Your task to perform on an android device: change keyboard looks Image 0: 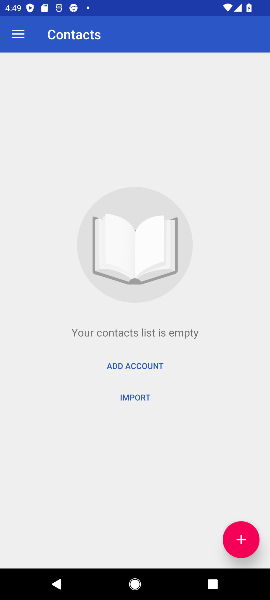
Step 0: press home button
Your task to perform on an android device: change keyboard looks Image 1: 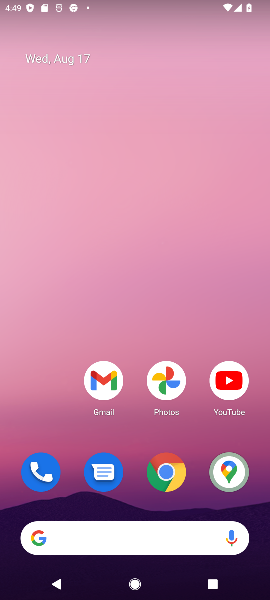
Step 1: drag from (145, 441) to (145, 104)
Your task to perform on an android device: change keyboard looks Image 2: 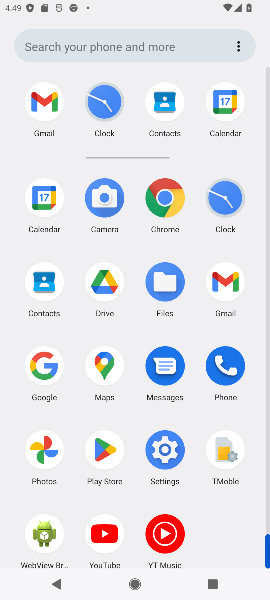
Step 2: click (143, 446)
Your task to perform on an android device: change keyboard looks Image 3: 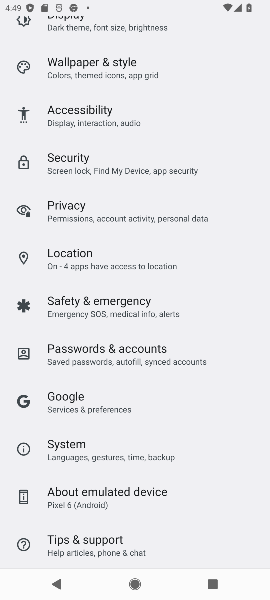
Step 3: drag from (116, 501) to (107, 116)
Your task to perform on an android device: change keyboard looks Image 4: 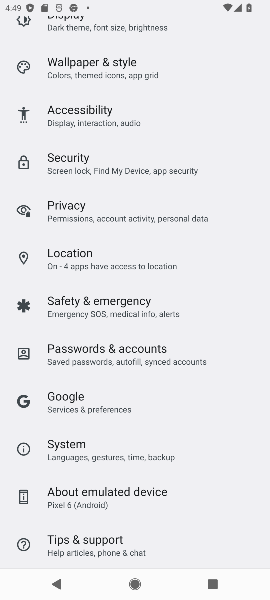
Step 4: click (85, 452)
Your task to perform on an android device: change keyboard looks Image 5: 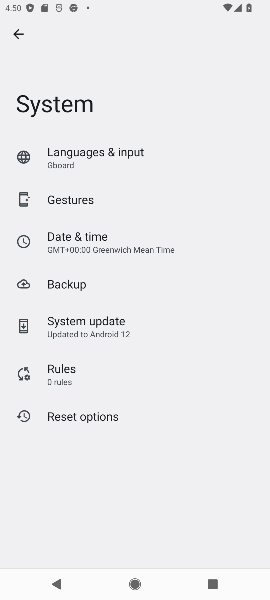
Step 5: click (121, 171)
Your task to perform on an android device: change keyboard looks Image 6: 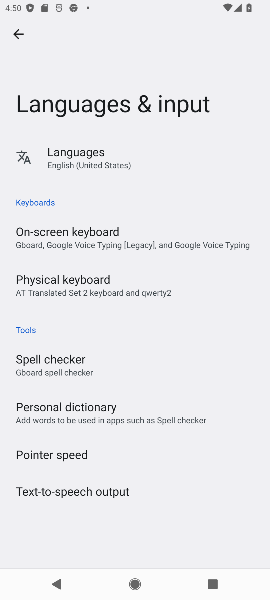
Step 6: drag from (79, 454) to (96, 239)
Your task to perform on an android device: change keyboard looks Image 7: 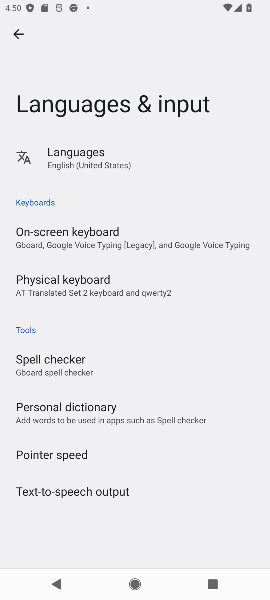
Step 7: click (99, 218)
Your task to perform on an android device: change keyboard looks Image 8: 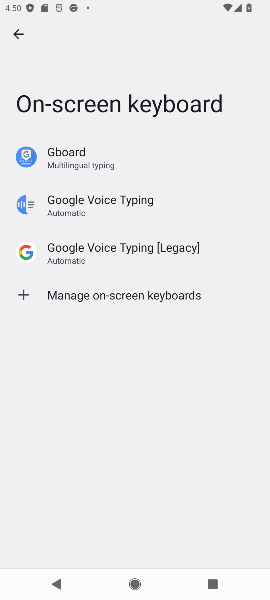
Step 8: click (84, 162)
Your task to perform on an android device: change keyboard looks Image 9: 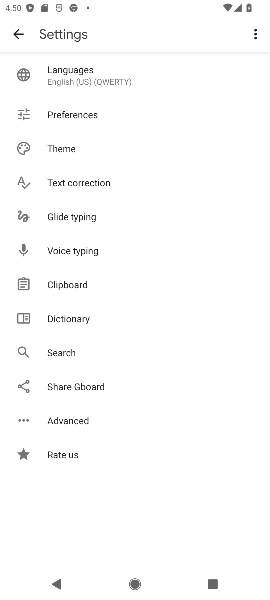
Step 9: click (84, 152)
Your task to perform on an android device: change keyboard looks Image 10: 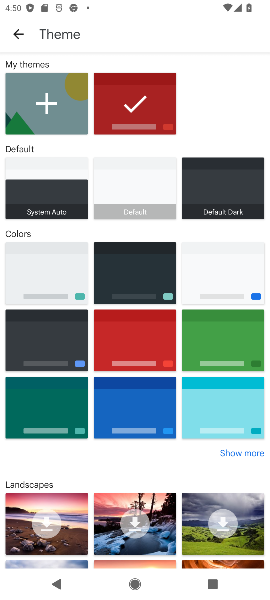
Step 10: click (134, 191)
Your task to perform on an android device: change keyboard looks Image 11: 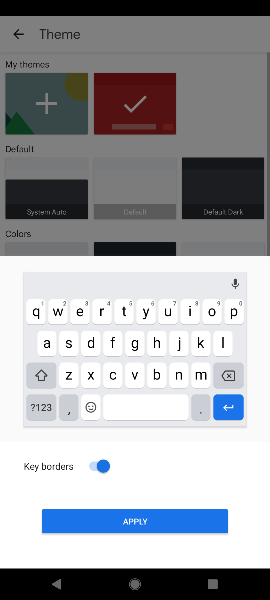
Step 11: click (136, 521)
Your task to perform on an android device: change keyboard looks Image 12: 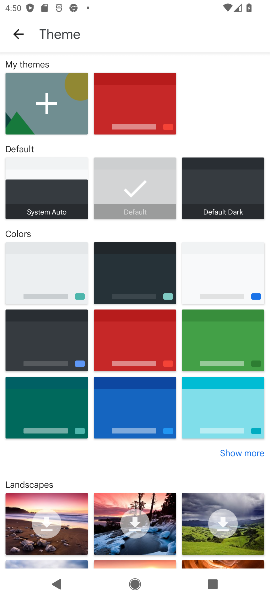
Step 12: task complete